Your task to perform on an android device: Clear the cart on bestbuy.com. Search for dell xps on bestbuy.com, select the first entry, and add it to the cart. Image 0: 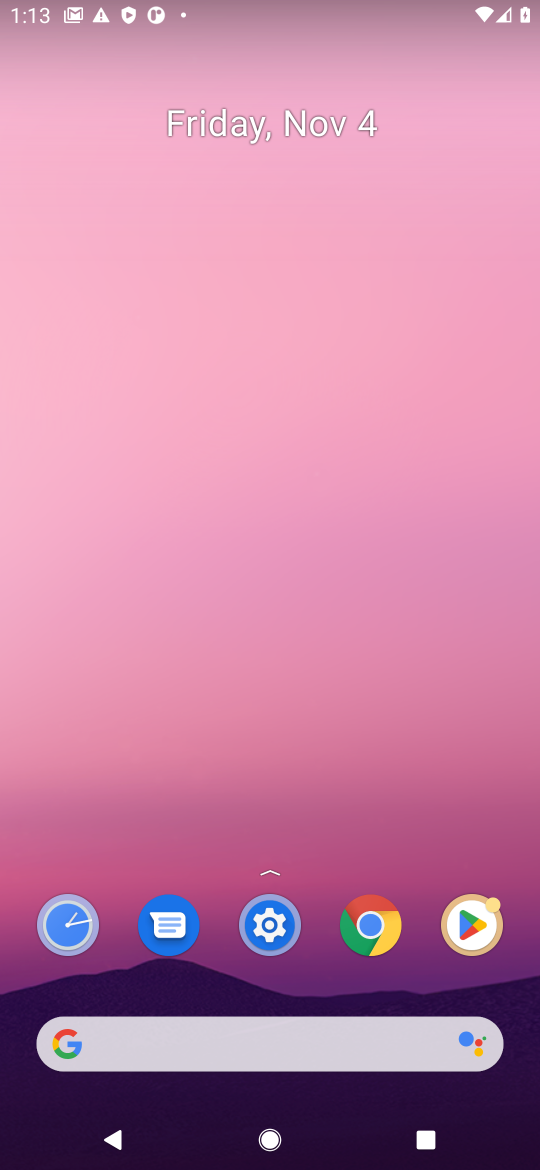
Step 0: click (370, 910)
Your task to perform on an android device: Clear the cart on bestbuy.com. Search for dell xps on bestbuy.com, select the first entry, and add it to the cart. Image 1: 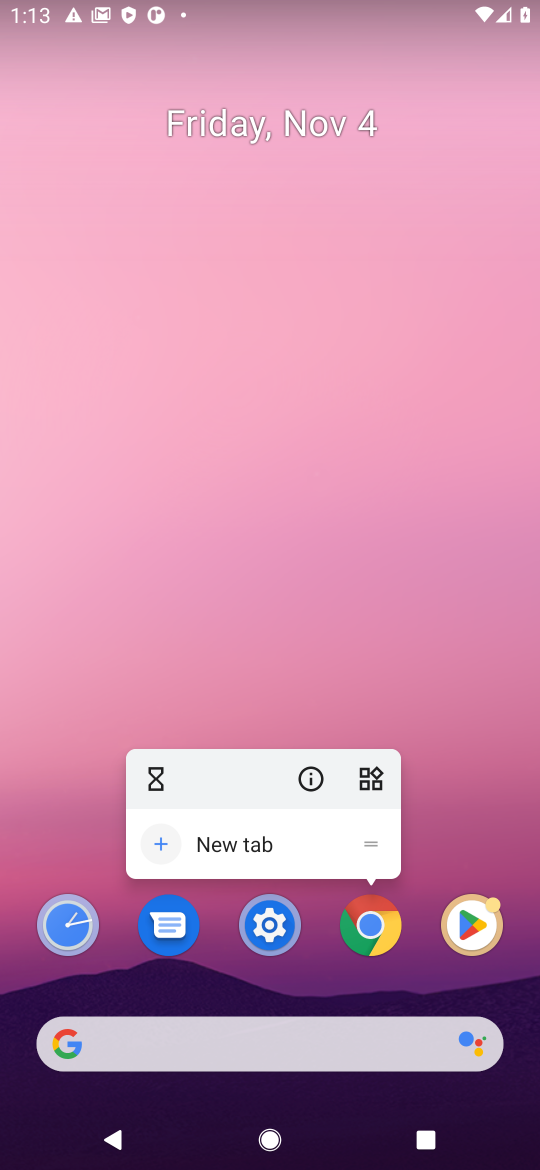
Step 1: click (393, 935)
Your task to perform on an android device: Clear the cart on bestbuy.com. Search for dell xps on bestbuy.com, select the first entry, and add it to the cart. Image 2: 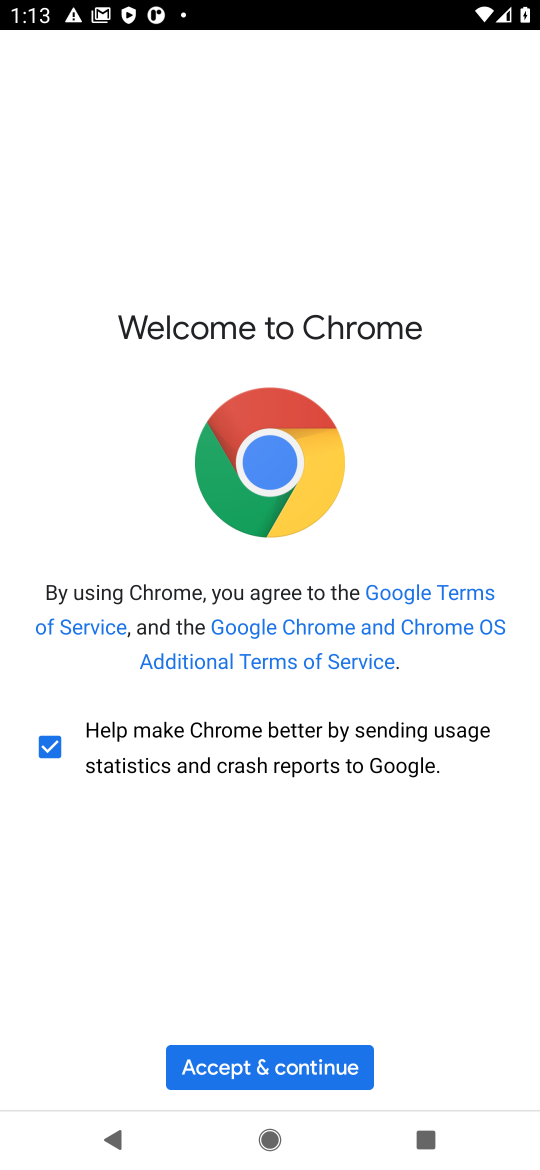
Step 2: click (286, 1061)
Your task to perform on an android device: Clear the cart on bestbuy.com. Search for dell xps on bestbuy.com, select the first entry, and add it to the cart. Image 3: 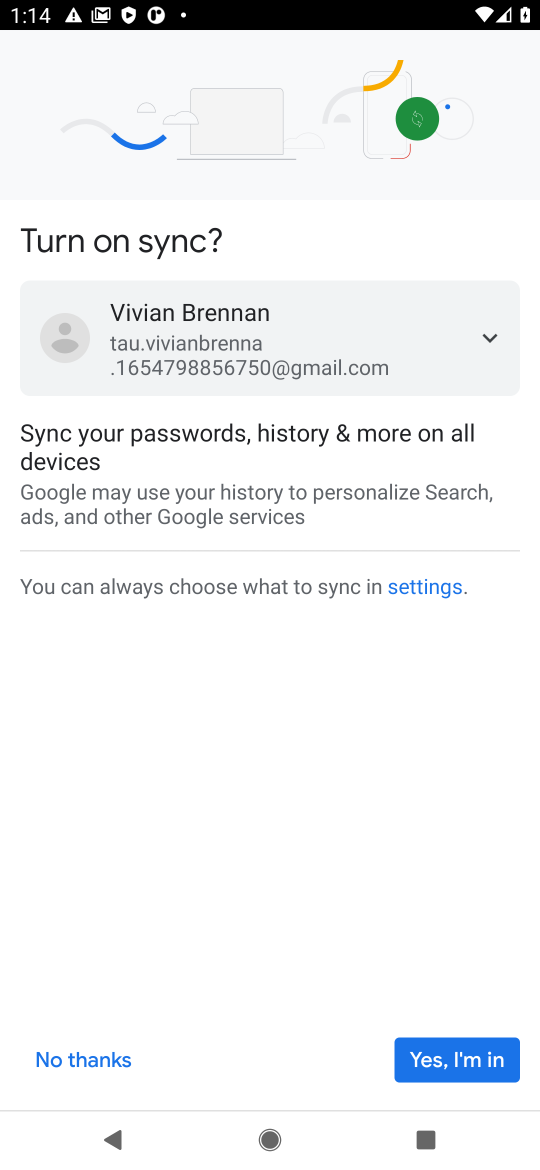
Step 3: click (491, 1065)
Your task to perform on an android device: Clear the cart on bestbuy.com. Search for dell xps on bestbuy.com, select the first entry, and add it to the cart. Image 4: 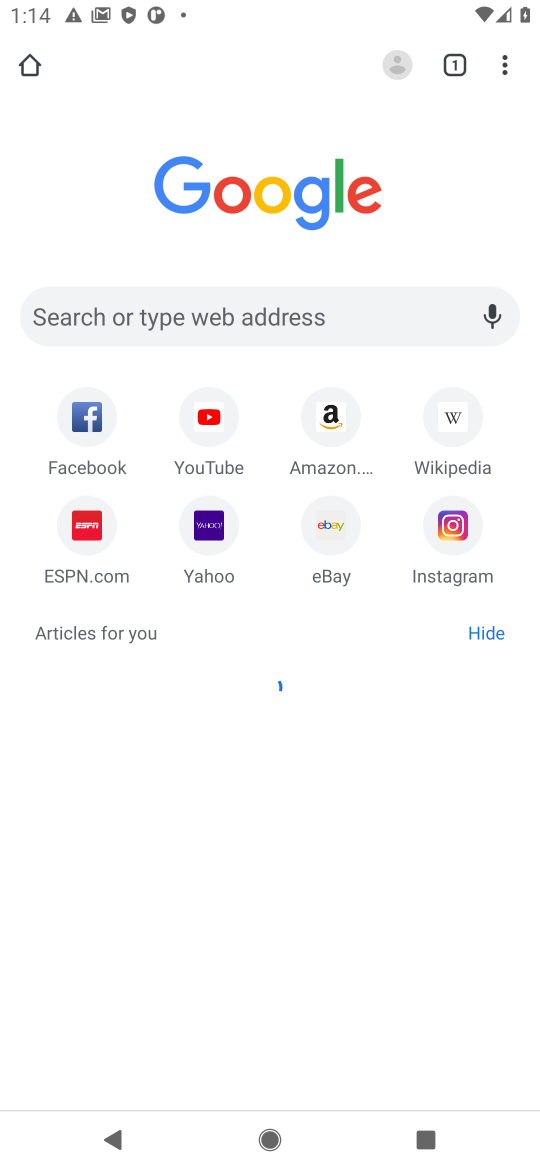
Step 4: click (313, 337)
Your task to perform on an android device: Clear the cart on bestbuy.com. Search for dell xps on bestbuy.com, select the first entry, and add it to the cart. Image 5: 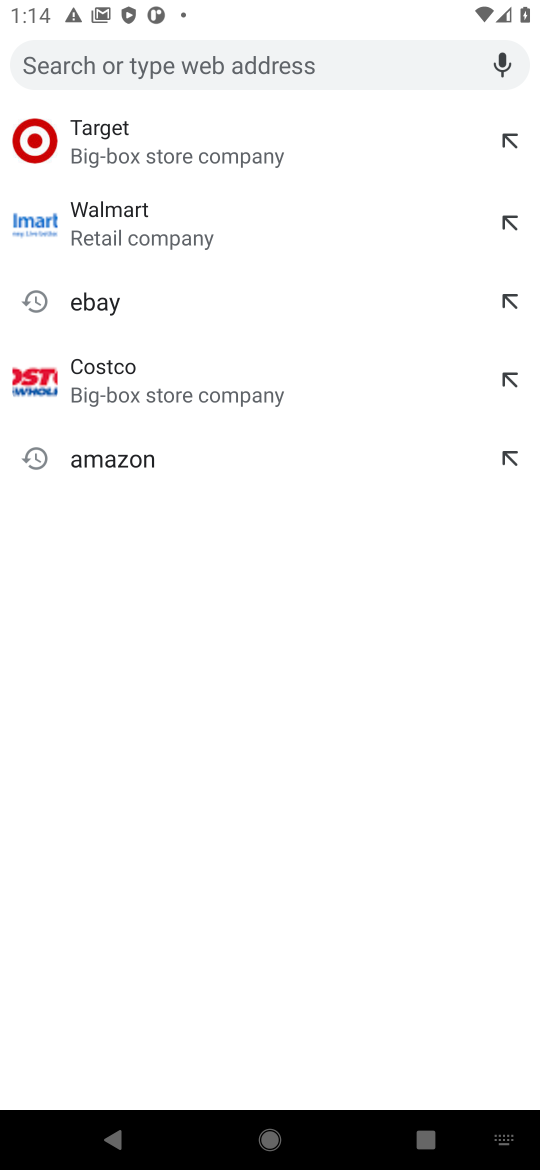
Step 5: type "bestbuy.com"
Your task to perform on an android device: Clear the cart on bestbuy.com. Search for dell xps on bestbuy.com, select the first entry, and add it to the cart. Image 6: 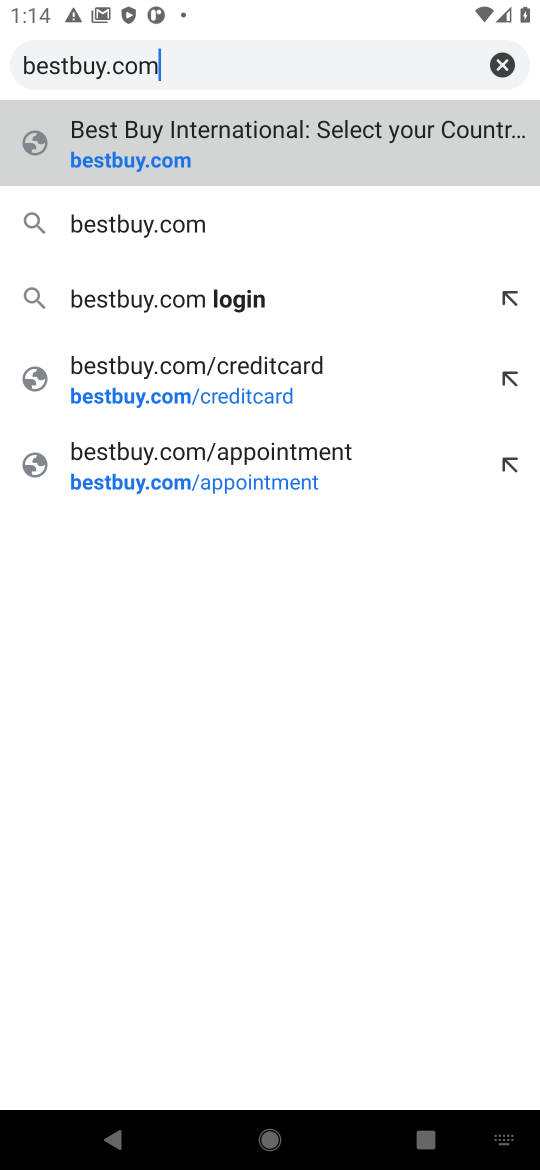
Step 6: click (134, 226)
Your task to perform on an android device: Clear the cart on bestbuy.com. Search for dell xps on bestbuy.com, select the first entry, and add it to the cart. Image 7: 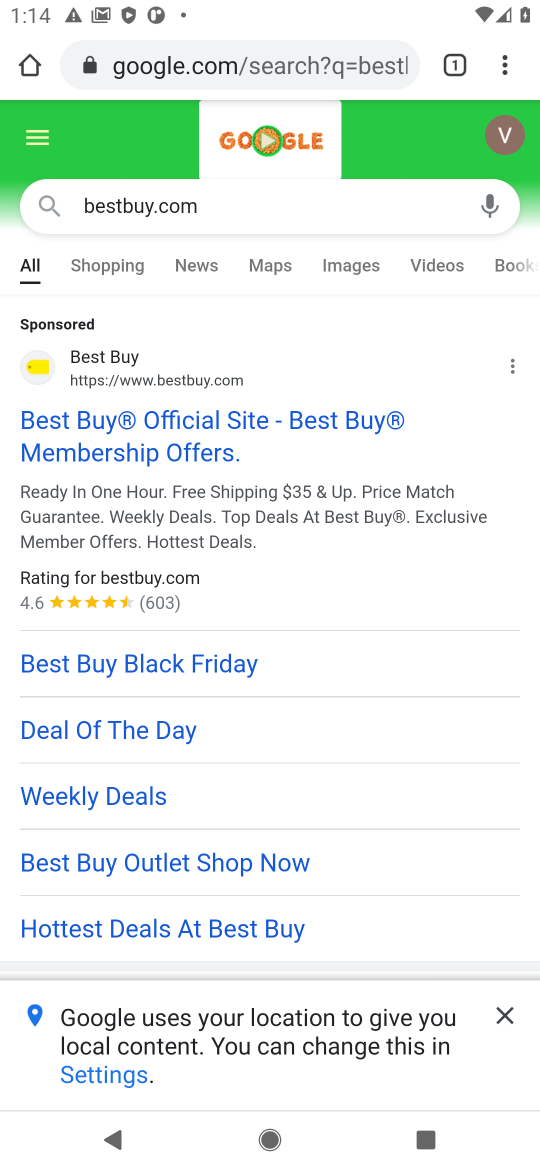
Step 7: click (141, 378)
Your task to perform on an android device: Clear the cart on bestbuy.com. Search for dell xps on bestbuy.com, select the first entry, and add it to the cart. Image 8: 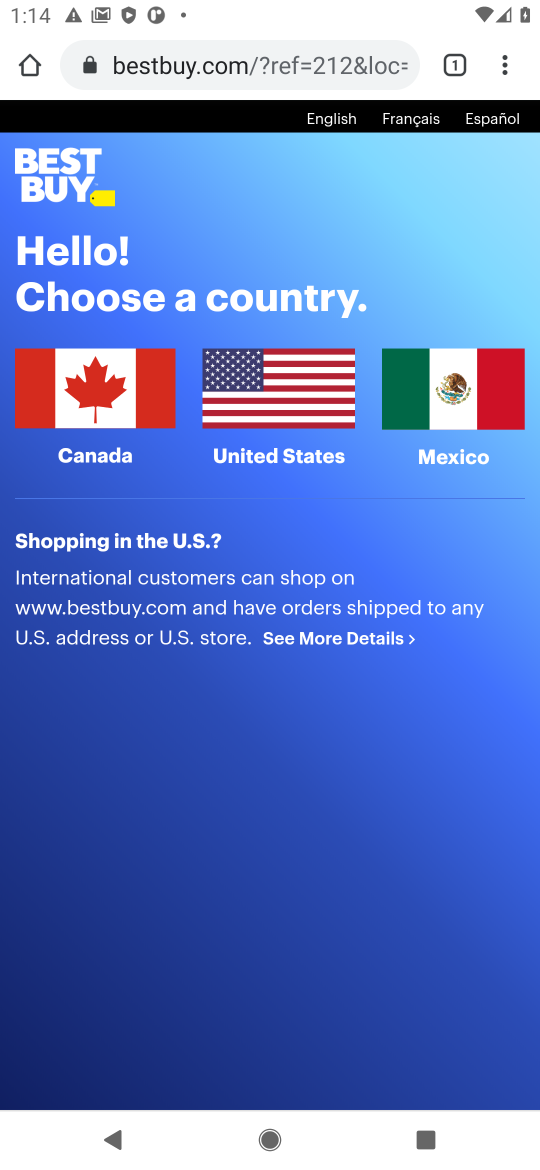
Step 8: click (310, 378)
Your task to perform on an android device: Clear the cart on bestbuy.com. Search for dell xps on bestbuy.com, select the first entry, and add it to the cart. Image 9: 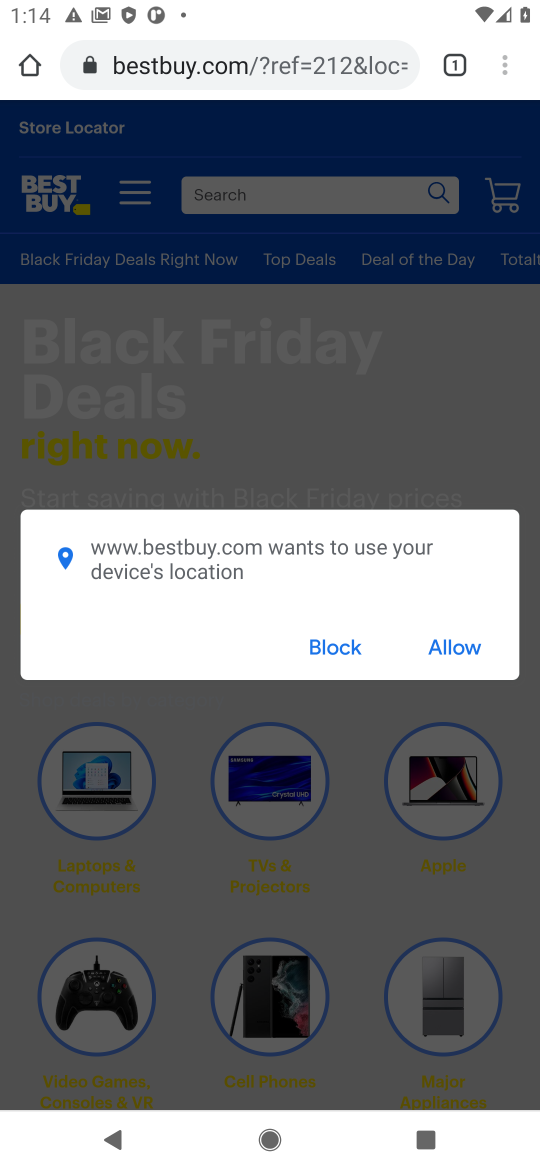
Step 9: click (310, 648)
Your task to perform on an android device: Clear the cart on bestbuy.com. Search for dell xps on bestbuy.com, select the first entry, and add it to the cart. Image 10: 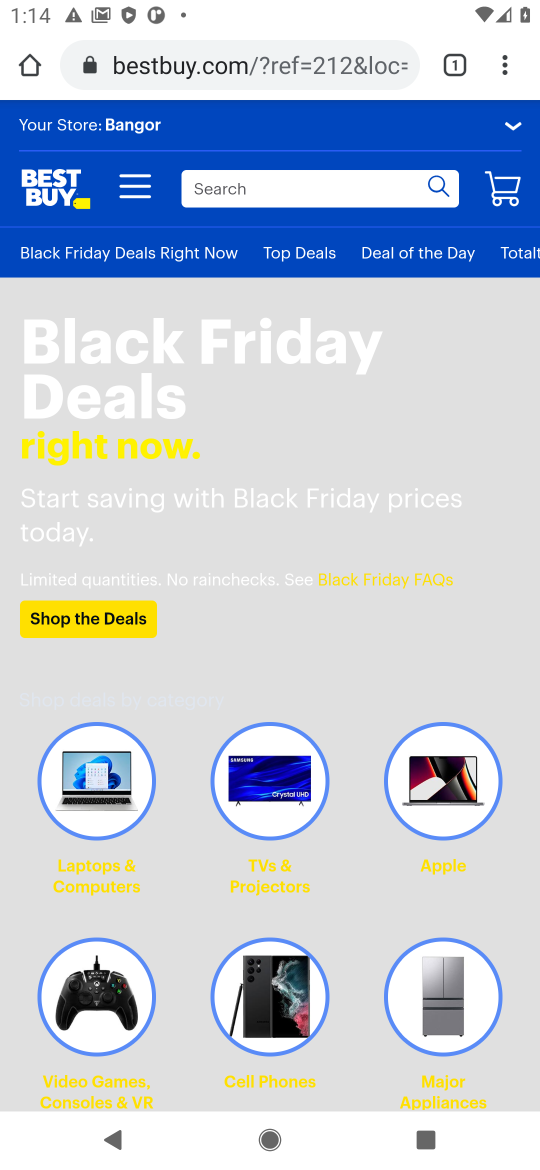
Step 10: click (319, 201)
Your task to perform on an android device: Clear the cart on bestbuy.com. Search for dell xps on bestbuy.com, select the first entry, and add it to the cart. Image 11: 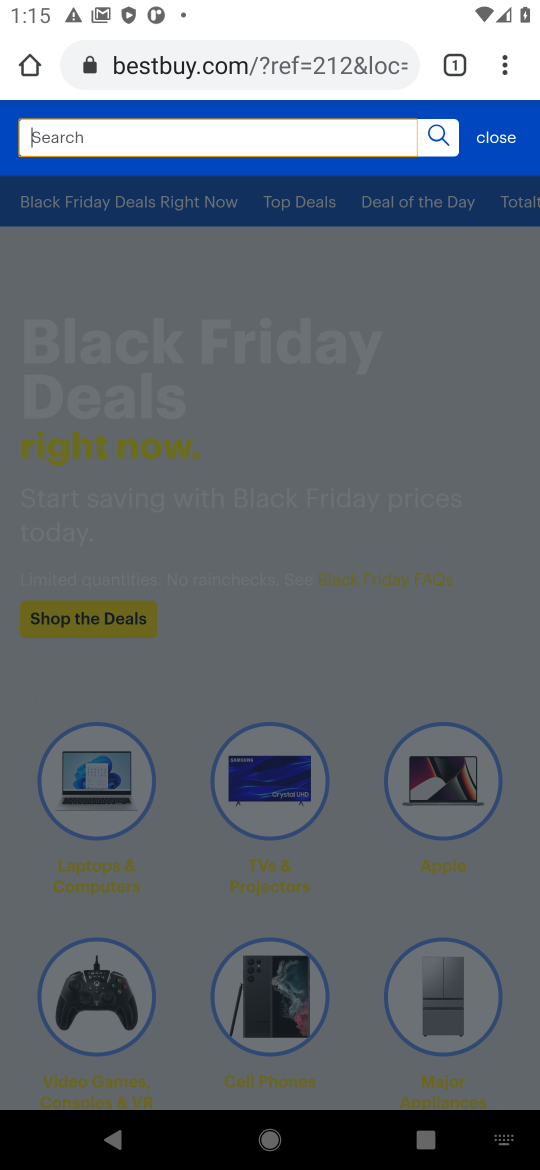
Step 11: type "dell xps"
Your task to perform on an android device: Clear the cart on bestbuy.com. Search for dell xps on bestbuy.com, select the first entry, and add it to the cart. Image 12: 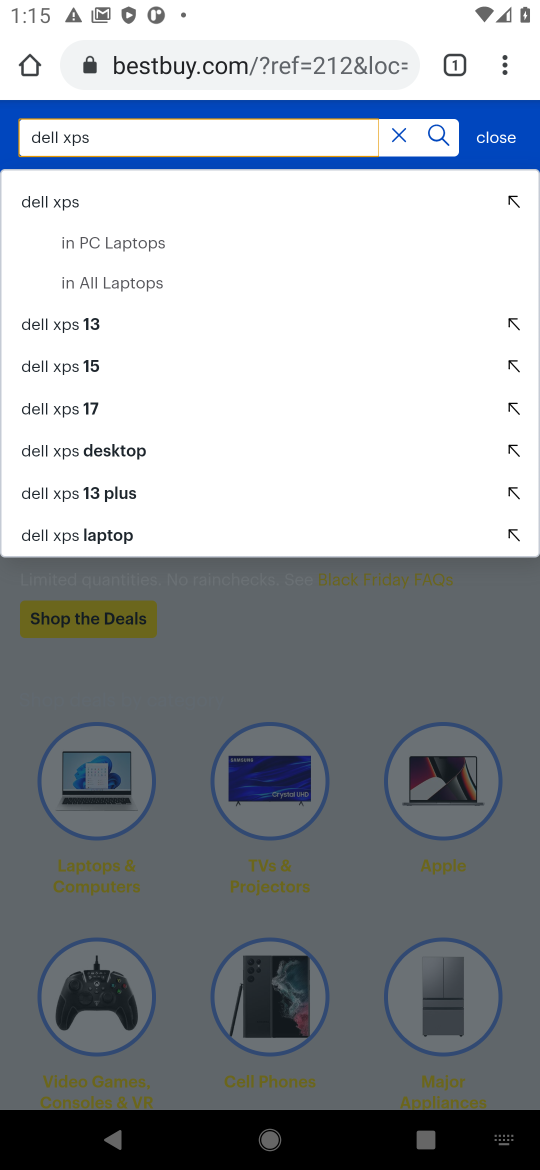
Step 12: click (39, 194)
Your task to perform on an android device: Clear the cart on bestbuy.com. Search for dell xps on bestbuy.com, select the first entry, and add it to the cart. Image 13: 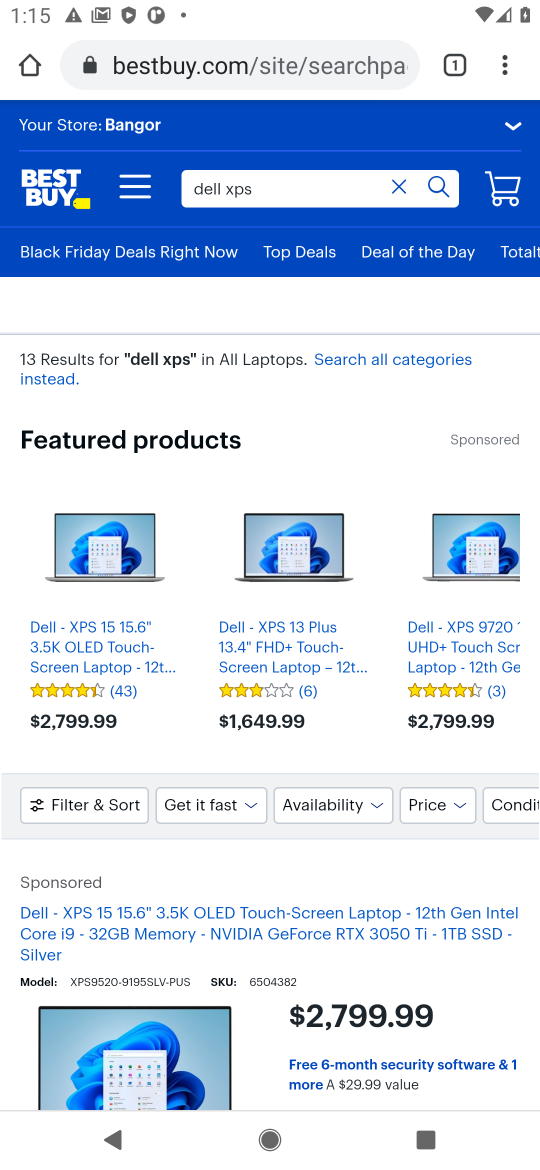
Step 13: drag from (184, 865) to (198, 477)
Your task to perform on an android device: Clear the cart on bestbuy.com. Search for dell xps on bestbuy.com, select the first entry, and add it to the cart. Image 14: 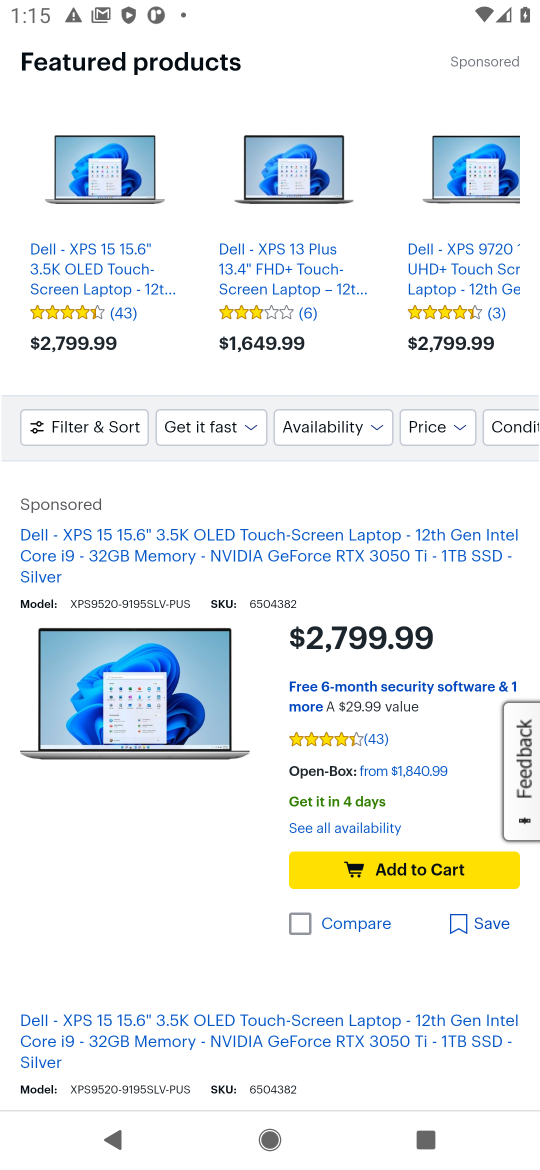
Step 14: click (130, 689)
Your task to perform on an android device: Clear the cart on bestbuy.com. Search for dell xps on bestbuy.com, select the first entry, and add it to the cart. Image 15: 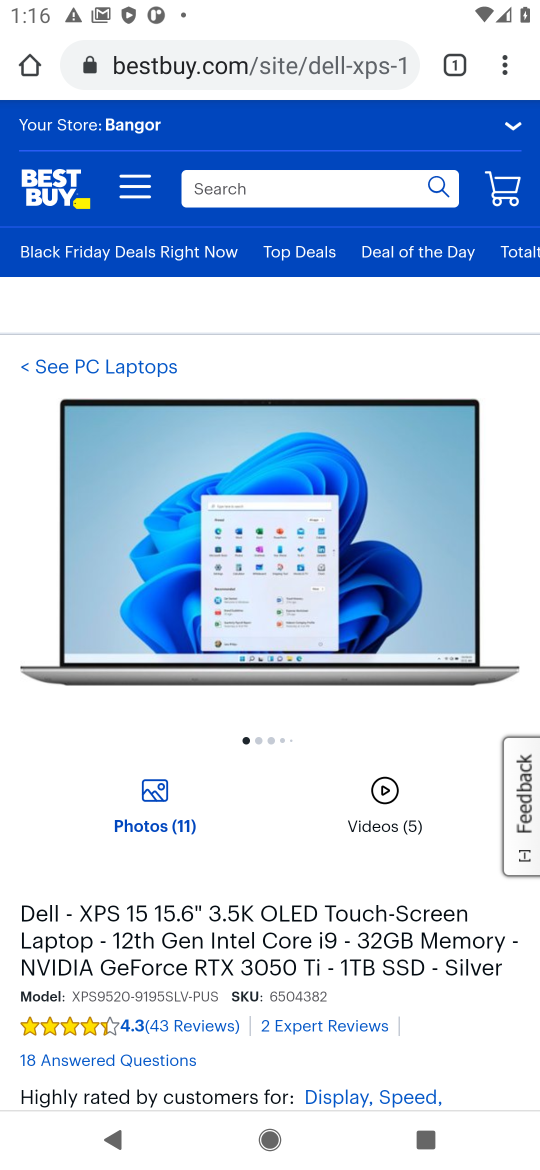
Step 15: click (323, 189)
Your task to perform on an android device: Clear the cart on bestbuy.com. Search for dell xps on bestbuy.com, select the first entry, and add it to the cart. Image 16: 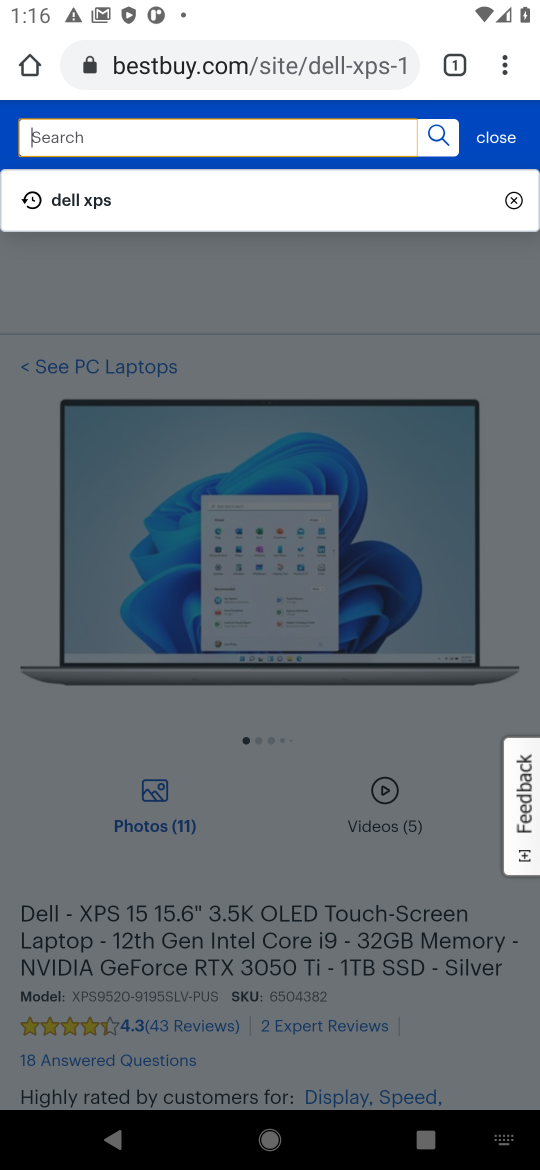
Step 16: click (303, 820)
Your task to perform on an android device: Clear the cart on bestbuy.com. Search for dell xps on bestbuy.com, select the first entry, and add it to the cart. Image 17: 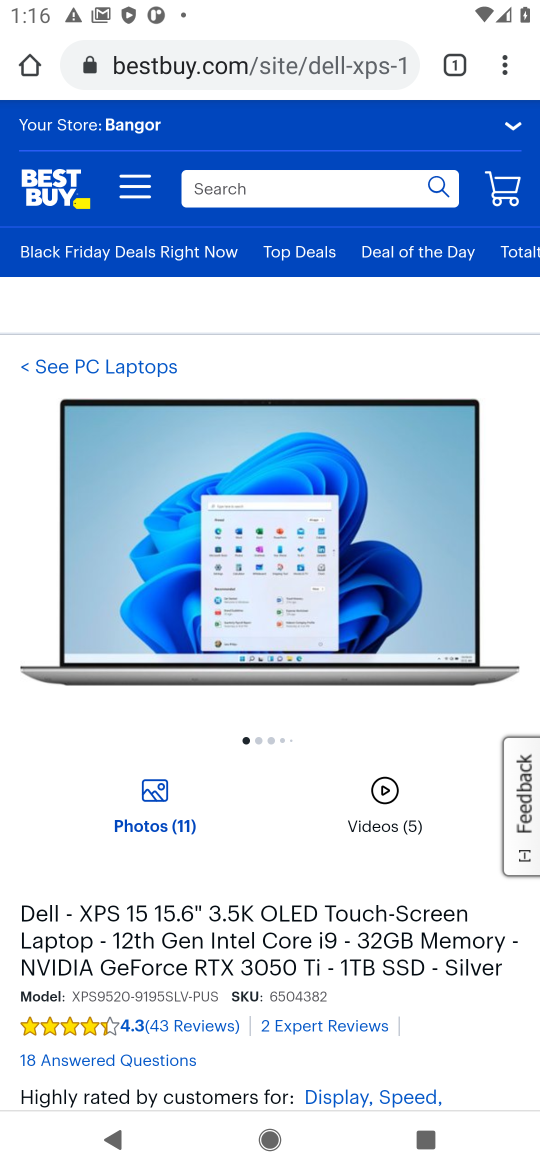
Step 17: click (228, 934)
Your task to perform on an android device: Clear the cart on bestbuy.com. Search for dell xps on bestbuy.com, select the first entry, and add it to the cart. Image 18: 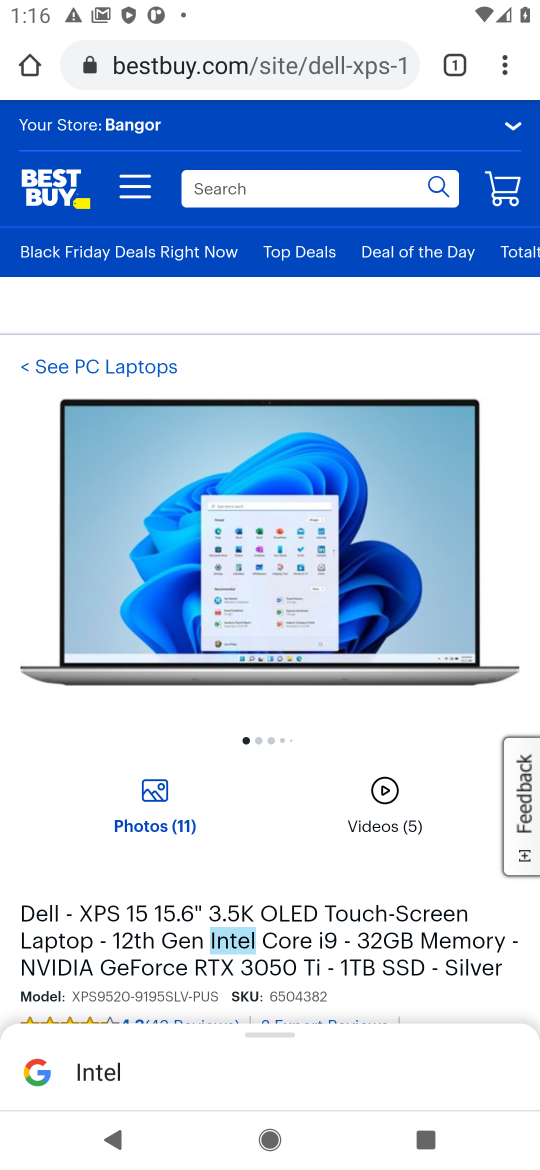
Step 18: drag from (356, 747) to (379, 412)
Your task to perform on an android device: Clear the cart on bestbuy.com. Search for dell xps on bestbuy.com, select the first entry, and add it to the cart. Image 19: 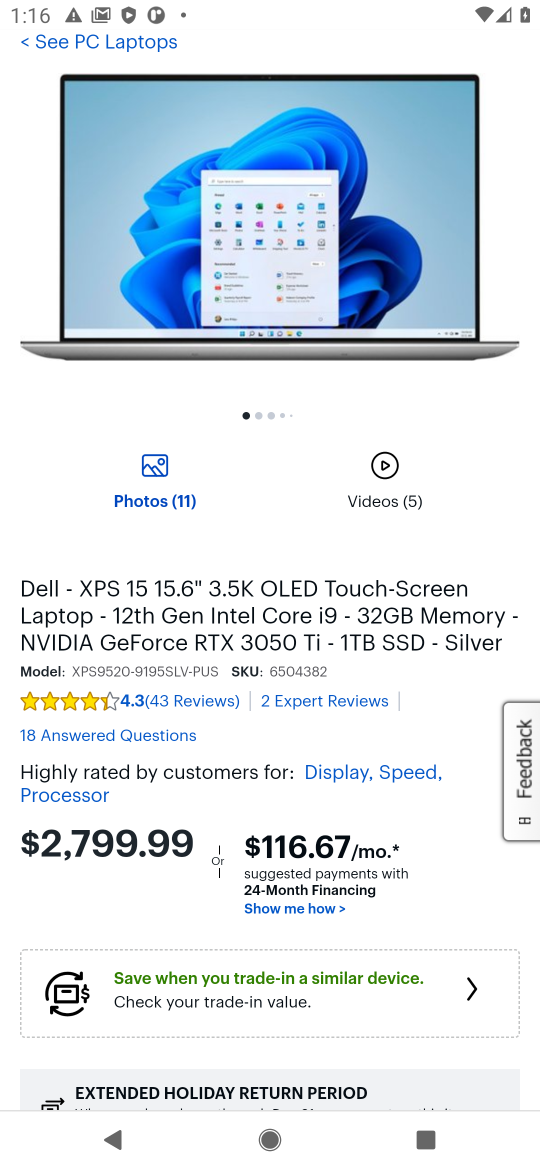
Step 19: drag from (316, 921) to (285, 498)
Your task to perform on an android device: Clear the cart on bestbuy.com. Search for dell xps on bestbuy.com, select the first entry, and add it to the cart. Image 20: 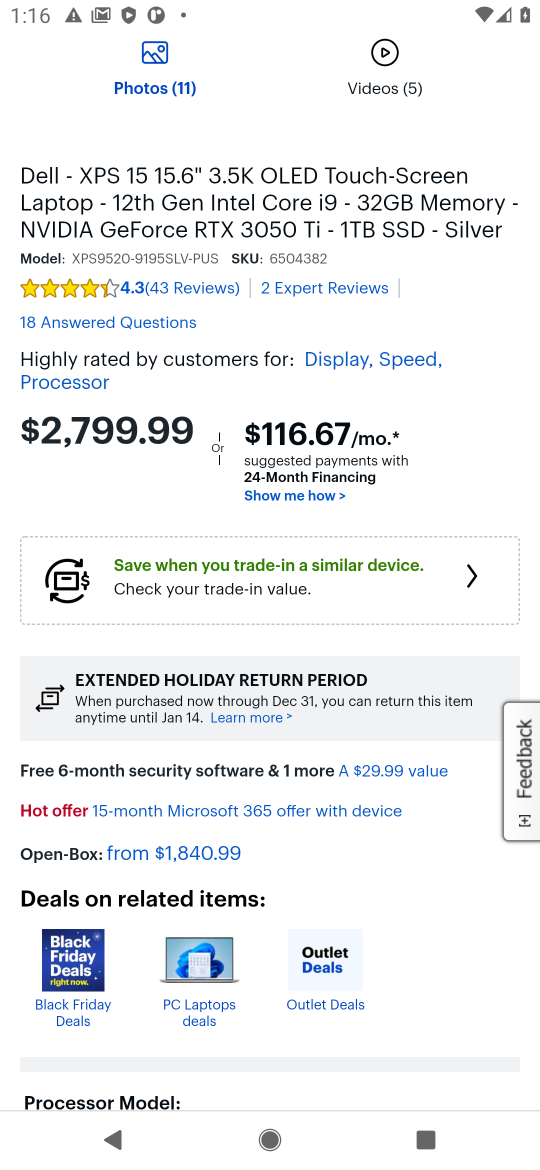
Step 20: drag from (422, 923) to (407, 444)
Your task to perform on an android device: Clear the cart on bestbuy.com. Search for dell xps on bestbuy.com, select the first entry, and add it to the cart. Image 21: 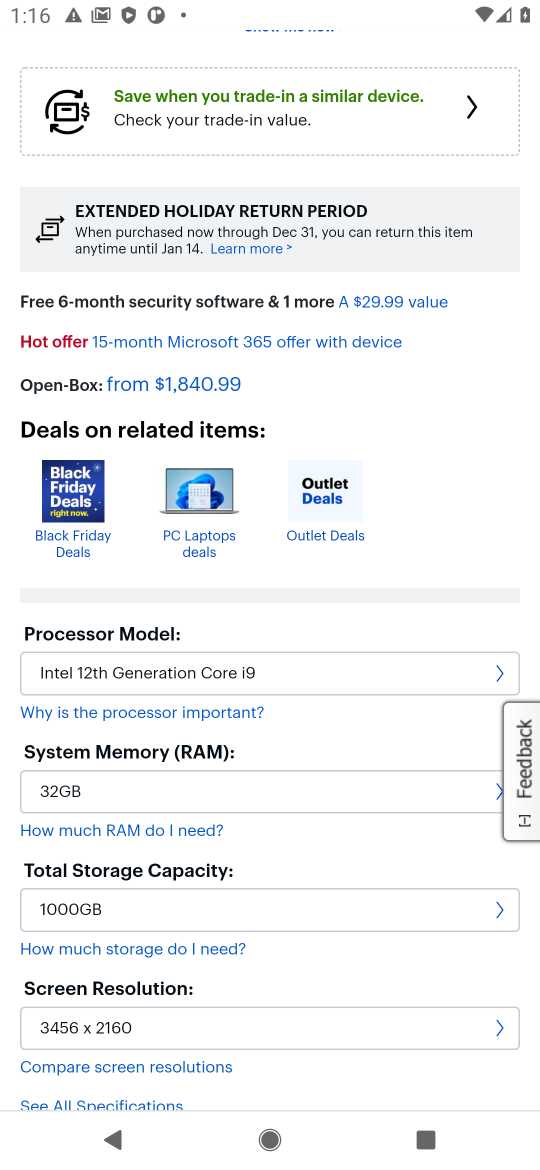
Step 21: drag from (409, 712) to (450, 355)
Your task to perform on an android device: Clear the cart on bestbuy.com. Search for dell xps on bestbuy.com, select the first entry, and add it to the cart. Image 22: 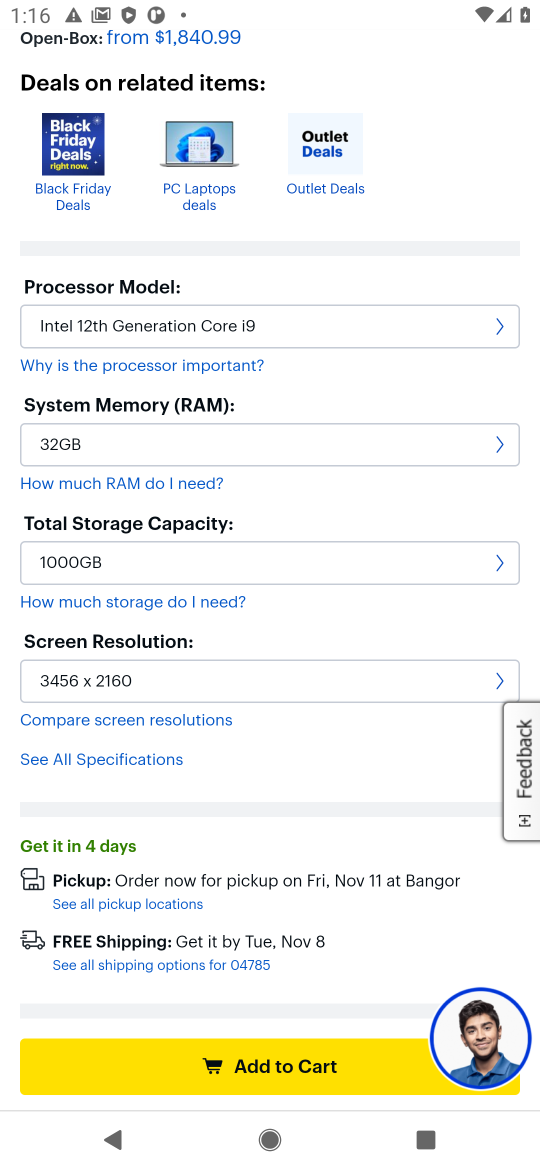
Step 22: click (291, 1071)
Your task to perform on an android device: Clear the cart on bestbuy.com. Search for dell xps on bestbuy.com, select the first entry, and add it to the cart. Image 23: 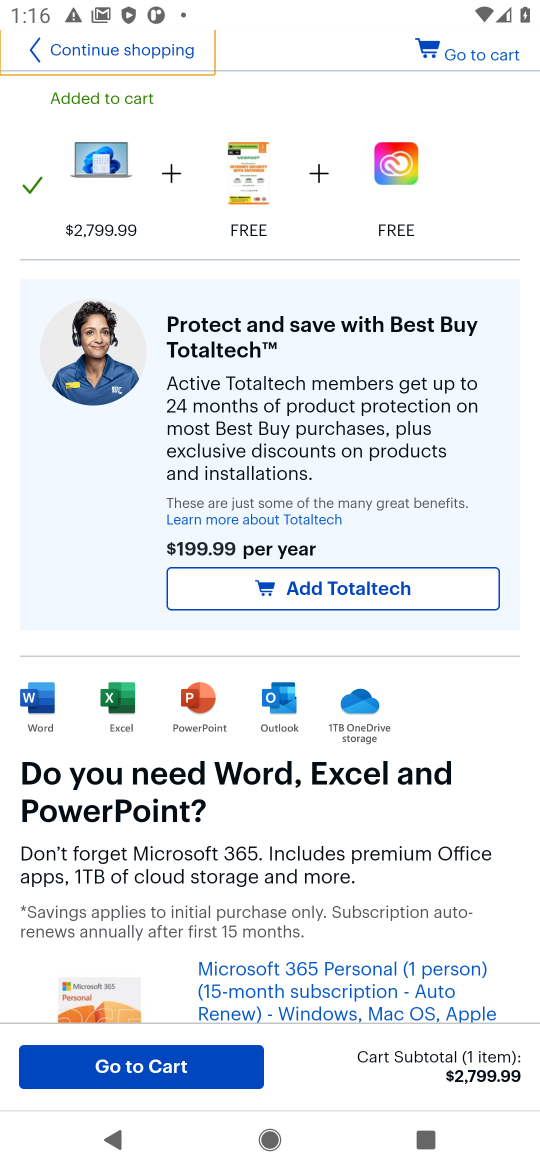
Step 23: task complete